Your task to perform on an android device: Go to Google Image 0: 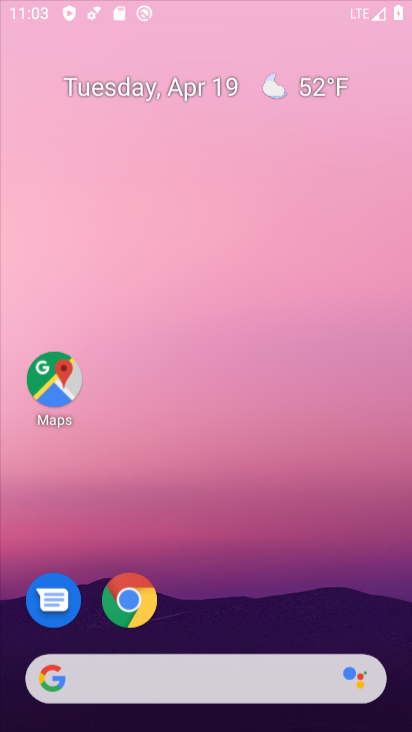
Step 0: click (141, 46)
Your task to perform on an android device: Go to Google Image 1: 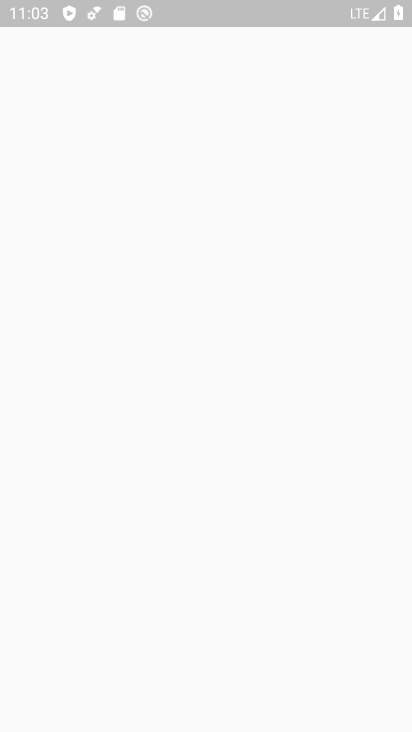
Step 1: press home button
Your task to perform on an android device: Go to Google Image 2: 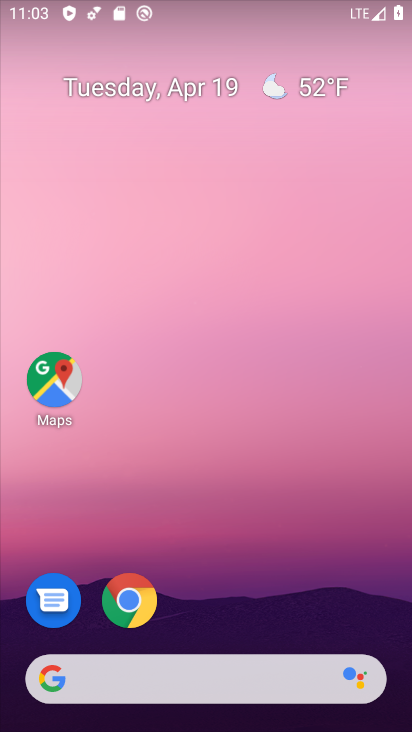
Step 2: drag from (207, 625) to (222, 5)
Your task to perform on an android device: Go to Google Image 3: 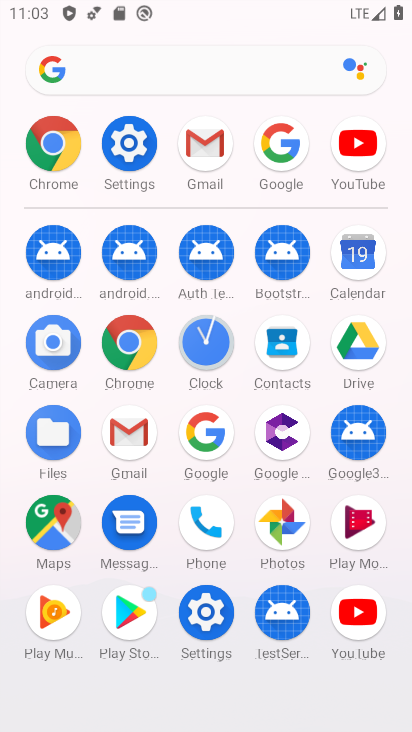
Step 3: click (201, 453)
Your task to perform on an android device: Go to Google Image 4: 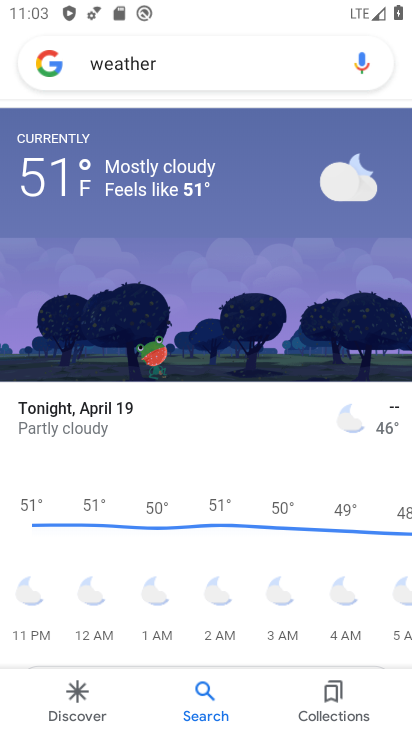
Step 4: task complete